Your task to perform on an android device: Open wifi settings Image 0: 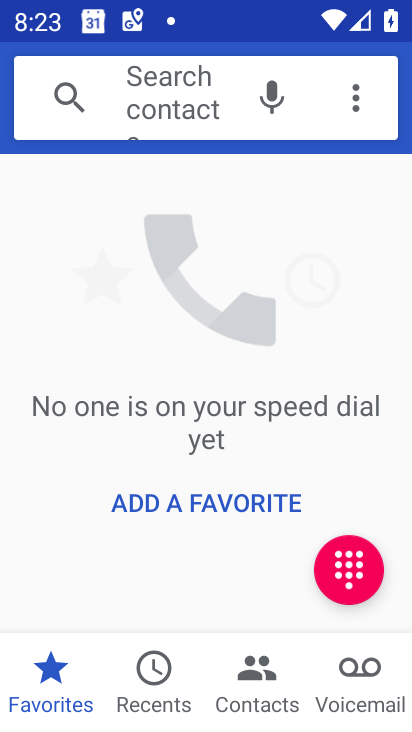
Step 0: press home button
Your task to perform on an android device: Open wifi settings Image 1: 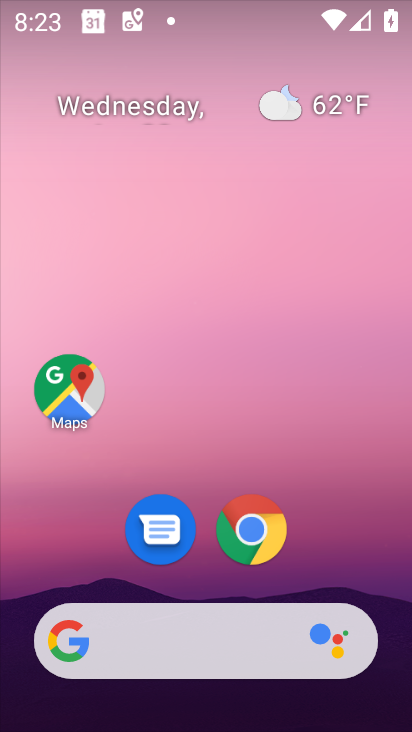
Step 1: drag from (214, 588) to (269, 170)
Your task to perform on an android device: Open wifi settings Image 2: 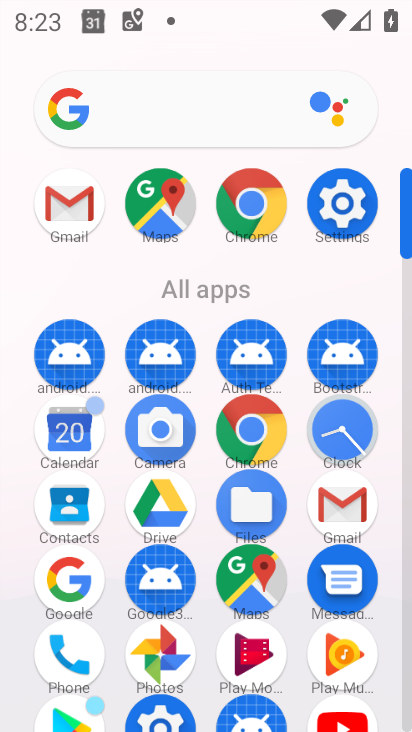
Step 2: click (346, 195)
Your task to perform on an android device: Open wifi settings Image 3: 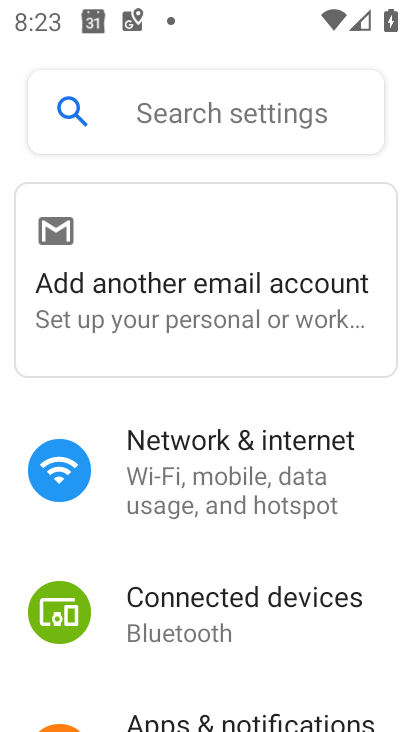
Step 3: click (226, 487)
Your task to perform on an android device: Open wifi settings Image 4: 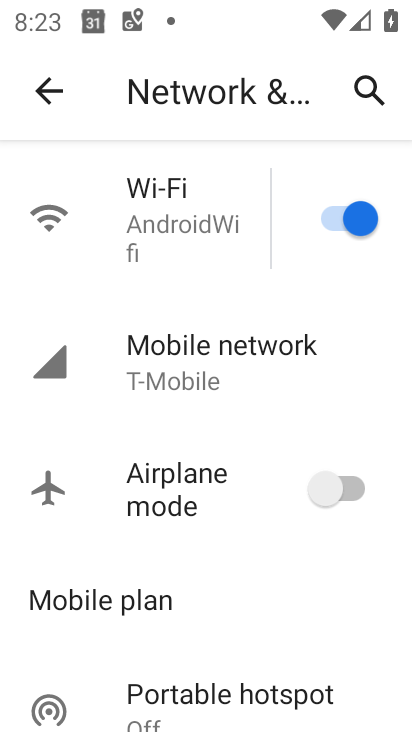
Step 4: click (191, 213)
Your task to perform on an android device: Open wifi settings Image 5: 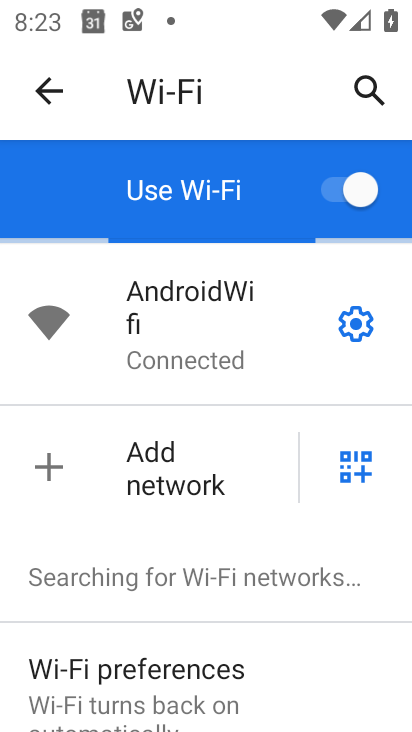
Step 5: task complete